Your task to perform on an android device: Open Google Chrome Image 0: 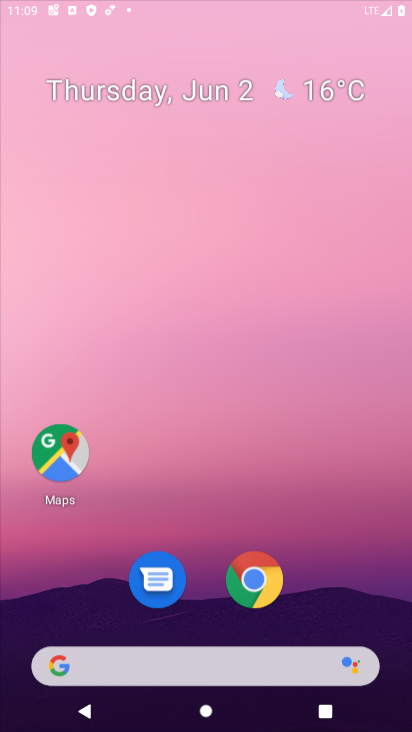
Step 0: click (278, 372)
Your task to perform on an android device: Open Google Chrome Image 1: 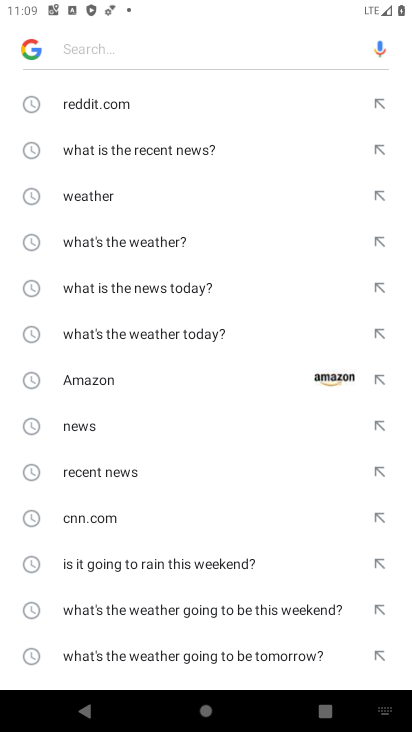
Step 1: press home button
Your task to perform on an android device: Open Google Chrome Image 2: 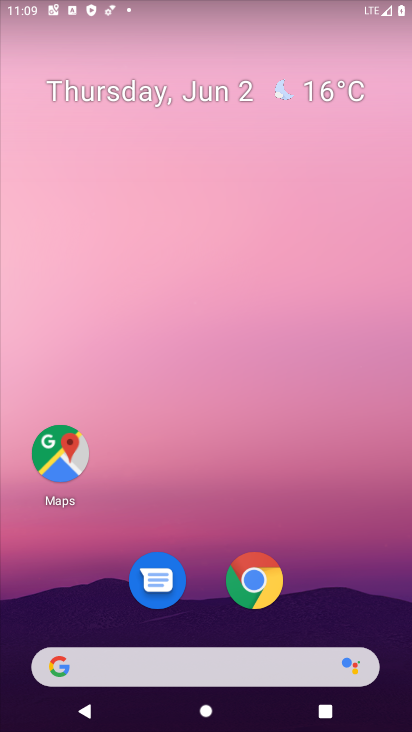
Step 2: drag from (218, 460) to (237, 323)
Your task to perform on an android device: Open Google Chrome Image 3: 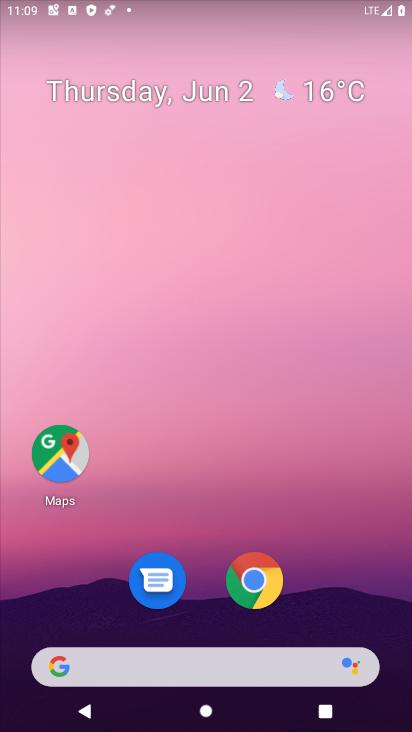
Step 3: drag from (199, 545) to (199, 140)
Your task to perform on an android device: Open Google Chrome Image 4: 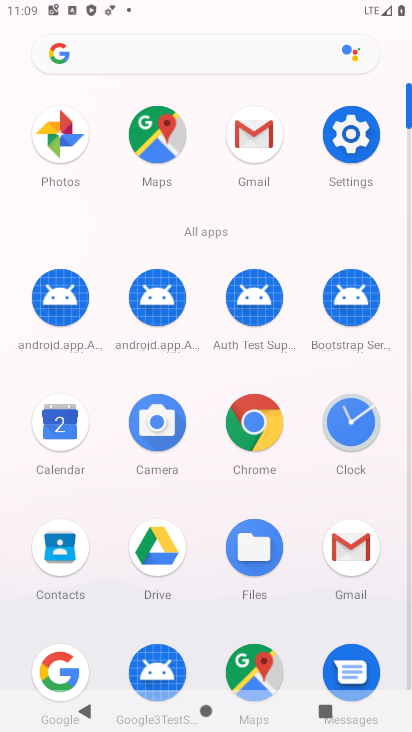
Step 4: click (259, 448)
Your task to perform on an android device: Open Google Chrome Image 5: 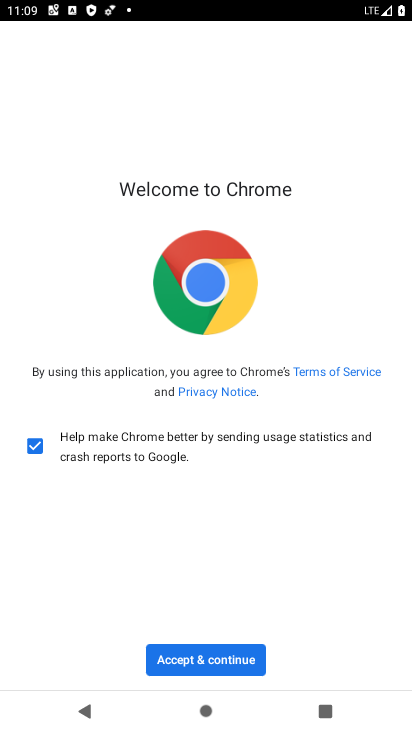
Step 5: click (239, 669)
Your task to perform on an android device: Open Google Chrome Image 6: 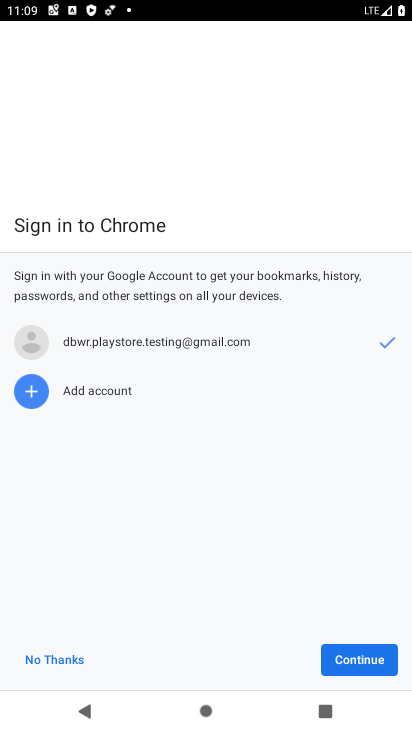
Step 6: click (367, 665)
Your task to perform on an android device: Open Google Chrome Image 7: 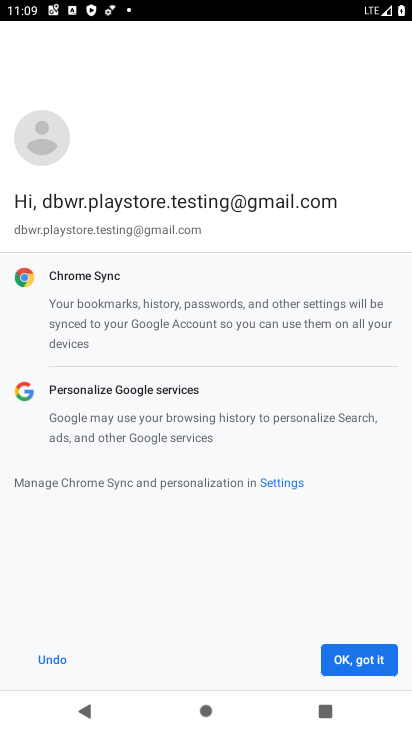
Step 7: click (372, 667)
Your task to perform on an android device: Open Google Chrome Image 8: 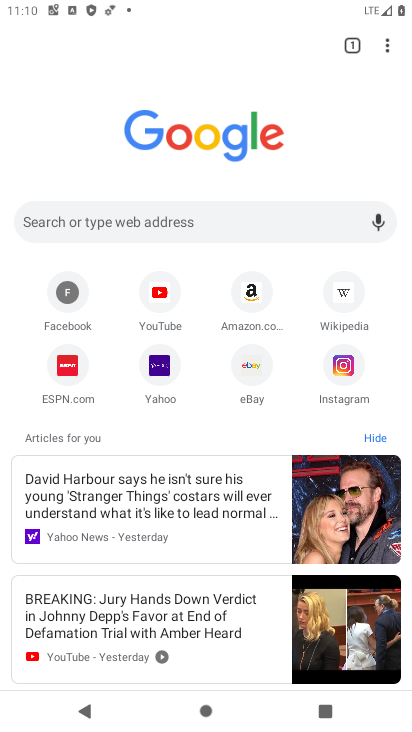
Step 8: task complete